Your task to perform on an android device: check google app version Image 0: 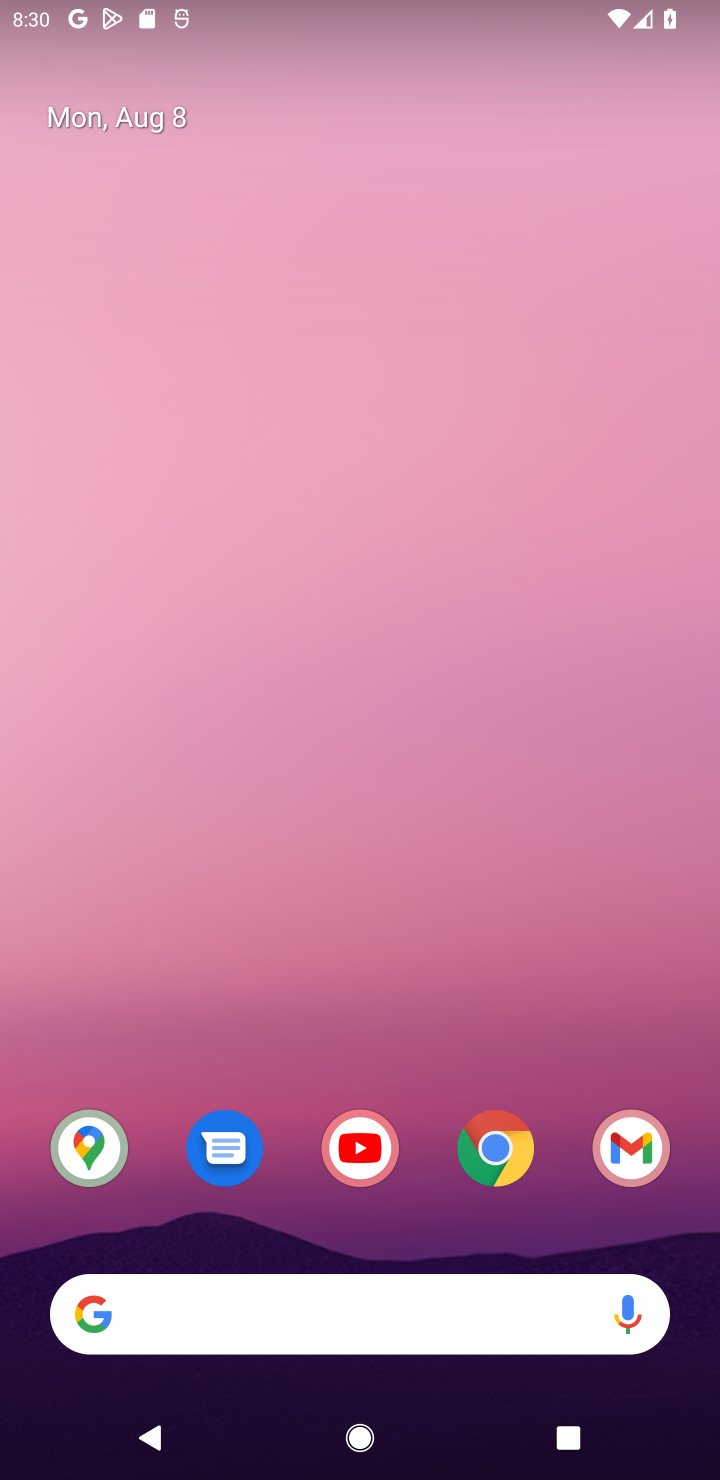
Step 0: drag from (399, 1235) to (330, 270)
Your task to perform on an android device: check google app version Image 1: 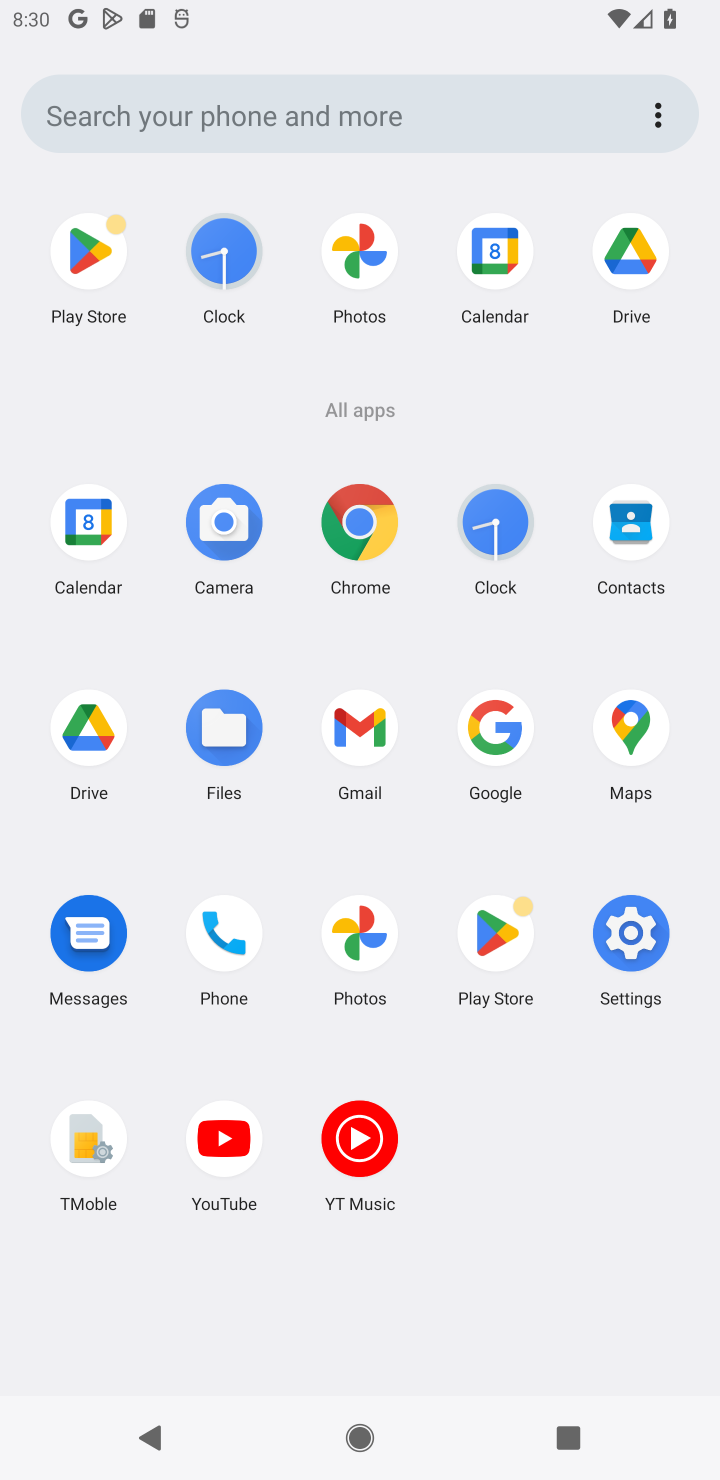
Step 1: click (499, 727)
Your task to perform on an android device: check google app version Image 2: 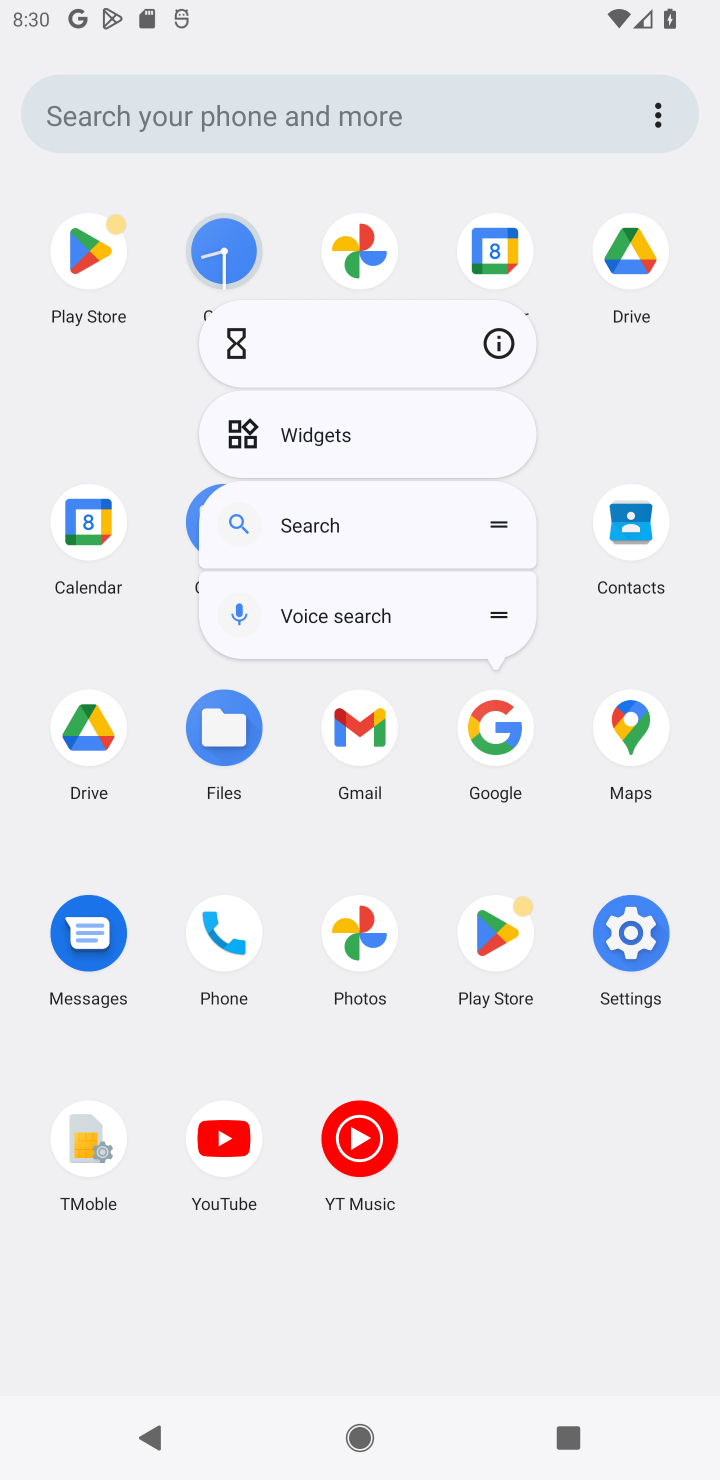
Step 2: click (500, 340)
Your task to perform on an android device: check google app version Image 3: 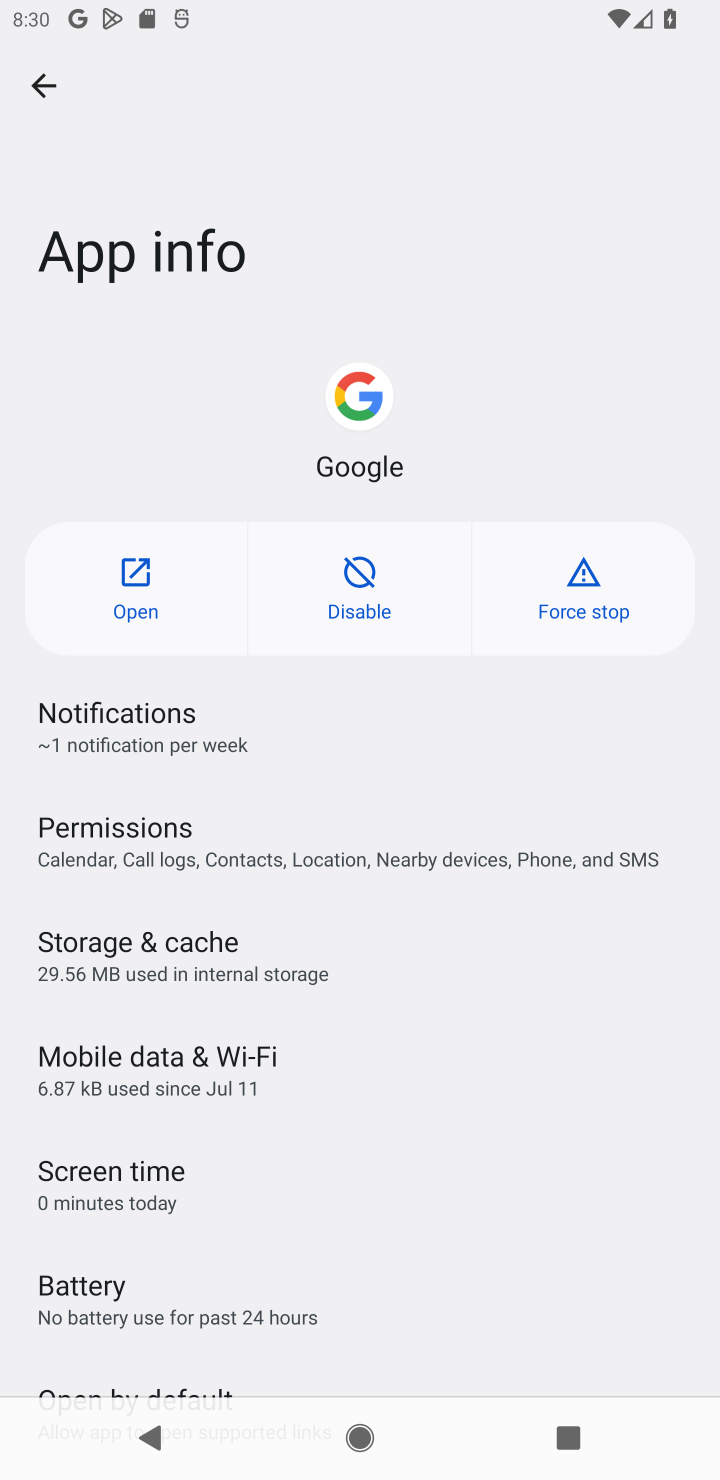
Step 3: task complete